Your task to perform on an android device: turn off priority inbox in the gmail app Image 0: 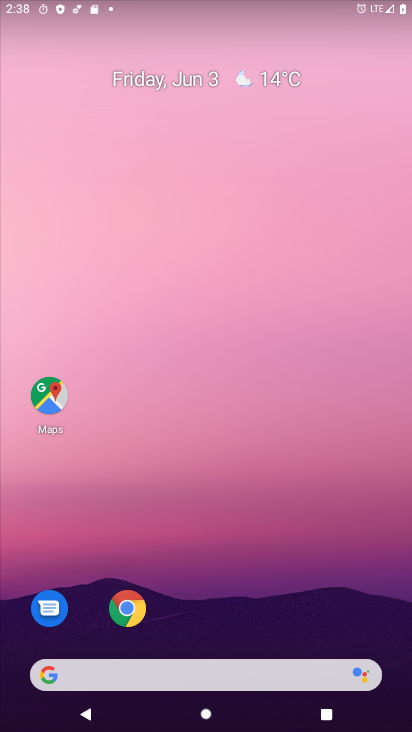
Step 0: drag from (226, 669) to (199, 110)
Your task to perform on an android device: turn off priority inbox in the gmail app Image 1: 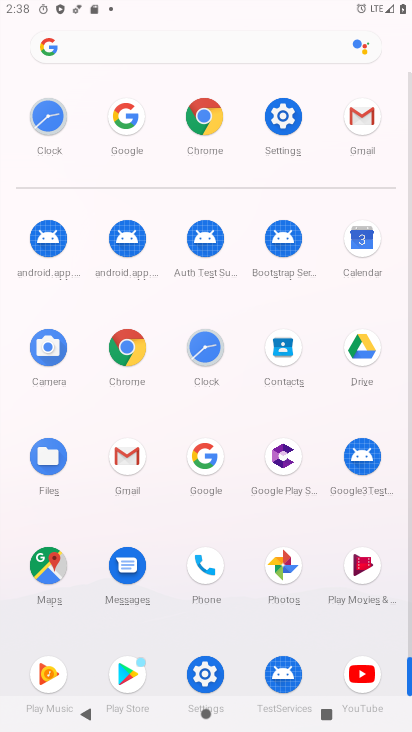
Step 1: click (126, 457)
Your task to perform on an android device: turn off priority inbox in the gmail app Image 2: 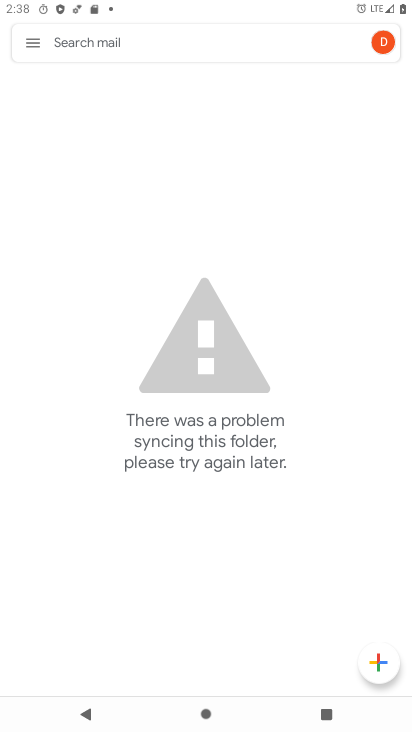
Step 2: click (28, 39)
Your task to perform on an android device: turn off priority inbox in the gmail app Image 3: 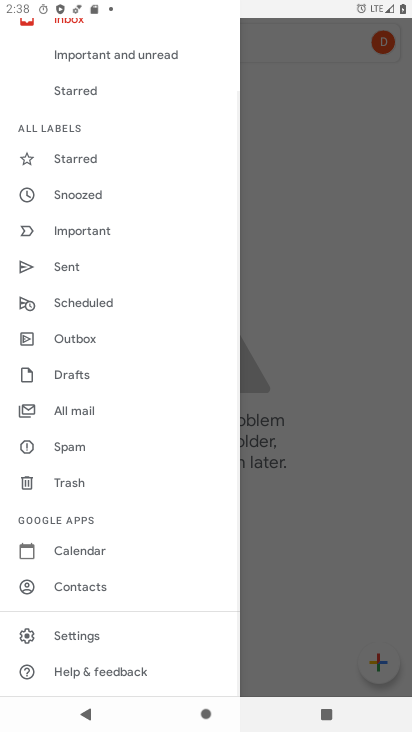
Step 3: click (97, 646)
Your task to perform on an android device: turn off priority inbox in the gmail app Image 4: 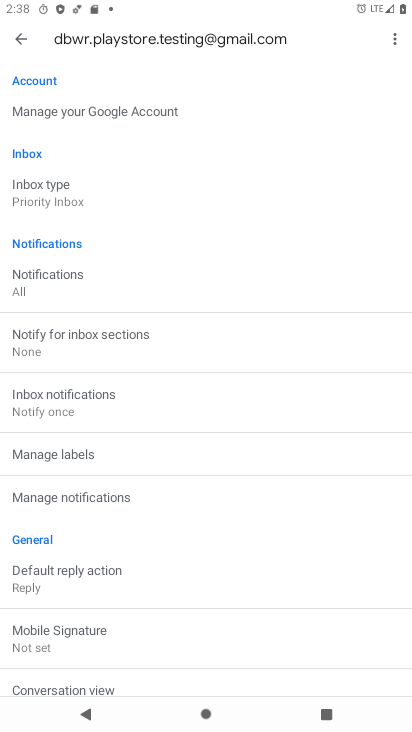
Step 4: click (114, 187)
Your task to perform on an android device: turn off priority inbox in the gmail app Image 5: 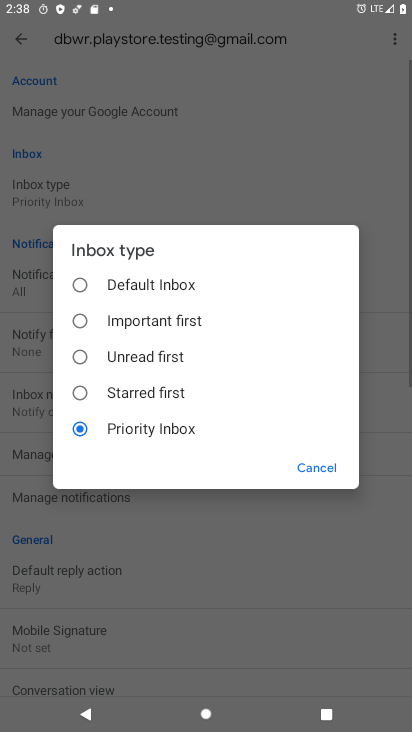
Step 5: click (111, 277)
Your task to perform on an android device: turn off priority inbox in the gmail app Image 6: 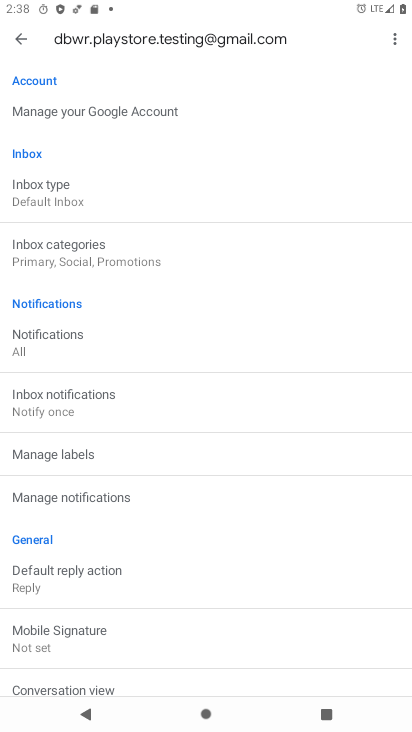
Step 6: task complete